Your task to perform on an android device: See recent photos Image 0: 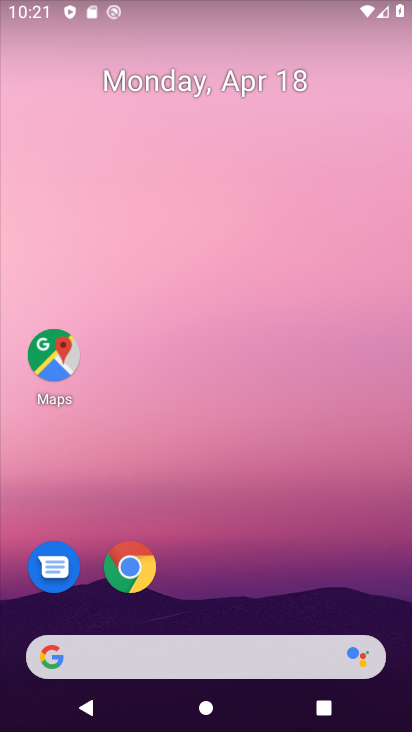
Step 0: drag from (236, 579) to (310, 73)
Your task to perform on an android device: See recent photos Image 1: 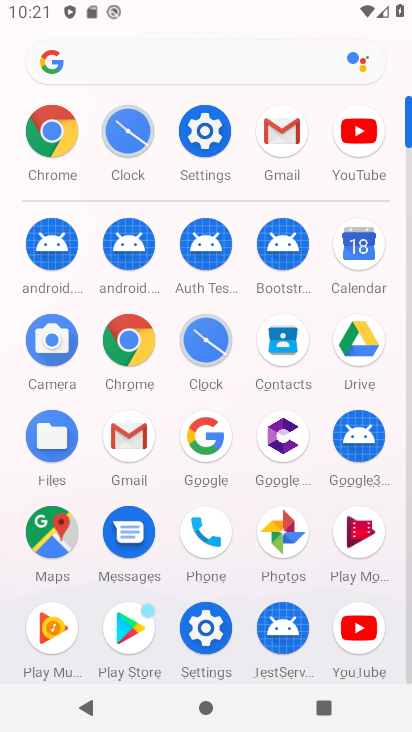
Step 1: click (285, 523)
Your task to perform on an android device: See recent photos Image 2: 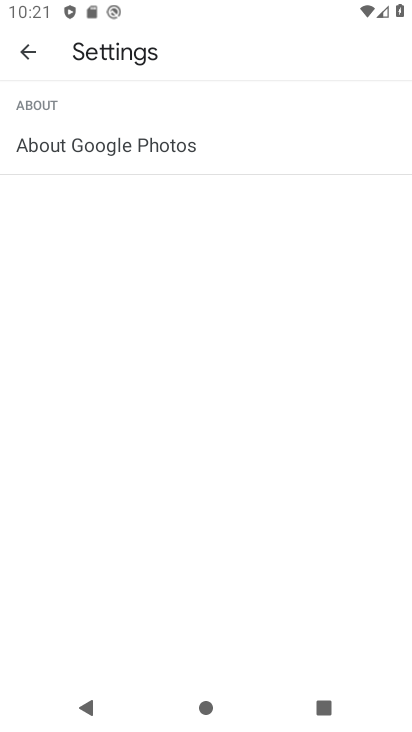
Step 2: press back button
Your task to perform on an android device: See recent photos Image 3: 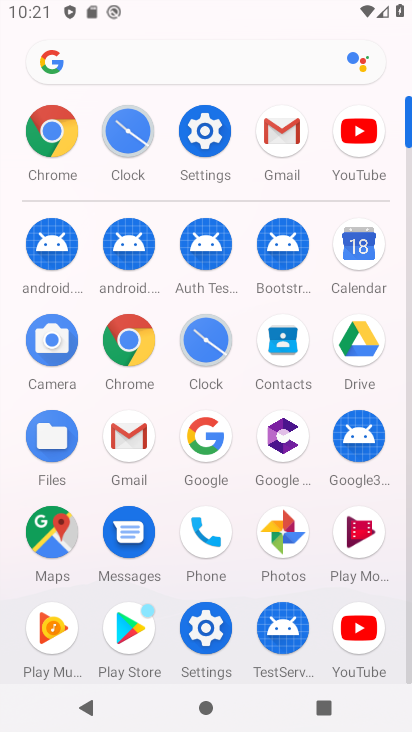
Step 3: click (272, 534)
Your task to perform on an android device: See recent photos Image 4: 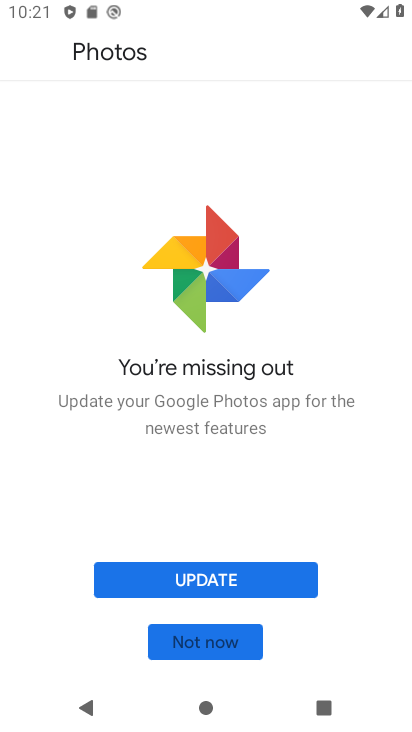
Step 4: click (204, 645)
Your task to perform on an android device: See recent photos Image 5: 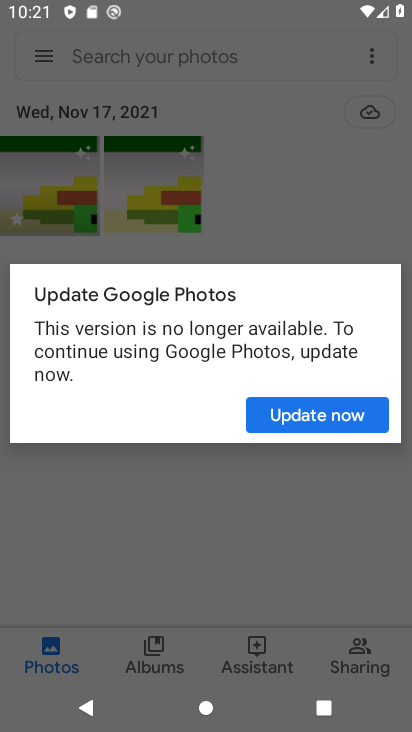
Step 5: click (289, 409)
Your task to perform on an android device: See recent photos Image 6: 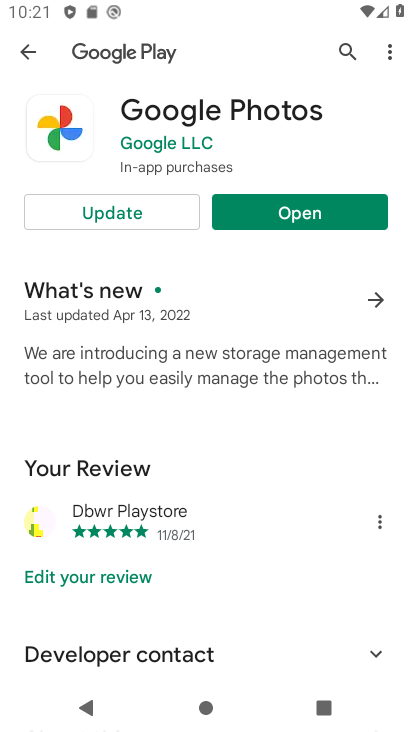
Step 6: click (136, 211)
Your task to perform on an android device: See recent photos Image 7: 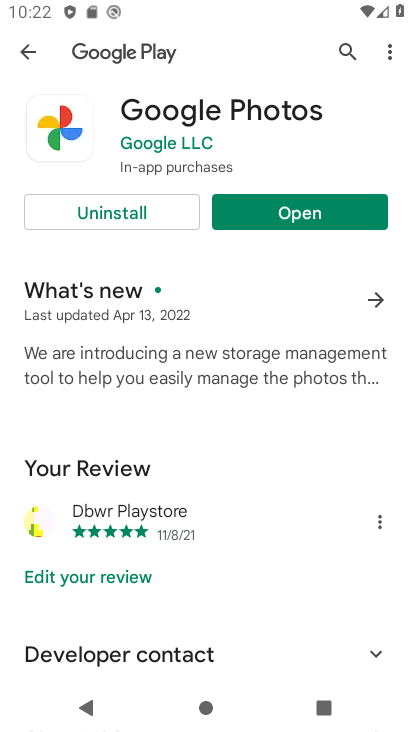
Step 7: click (290, 214)
Your task to perform on an android device: See recent photos Image 8: 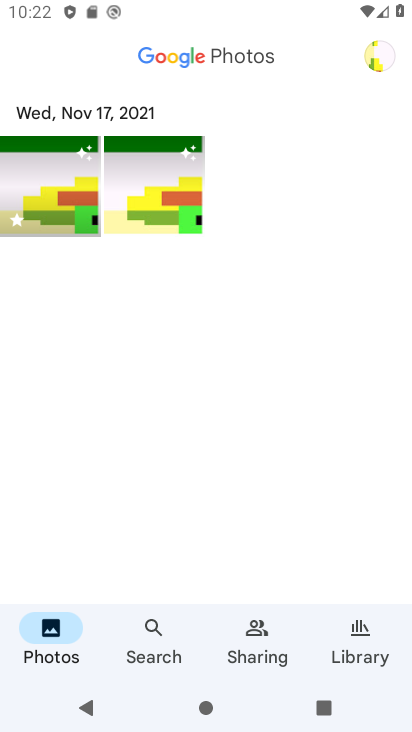
Step 8: task complete